Your task to perform on an android device: create a new album in the google photos Image 0: 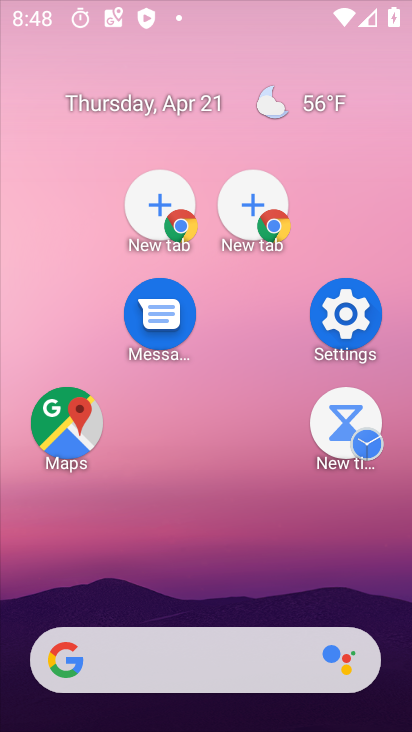
Step 0: click (403, 174)
Your task to perform on an android device: create a new album in the google photos Image 1: 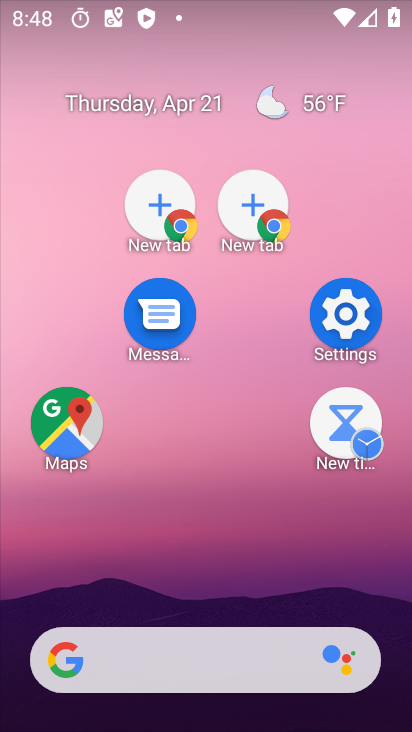
Step 1: drag from (291, 681) to (176, 72)
Your task to perform on an android device: create a new album in the google photos Image 2: 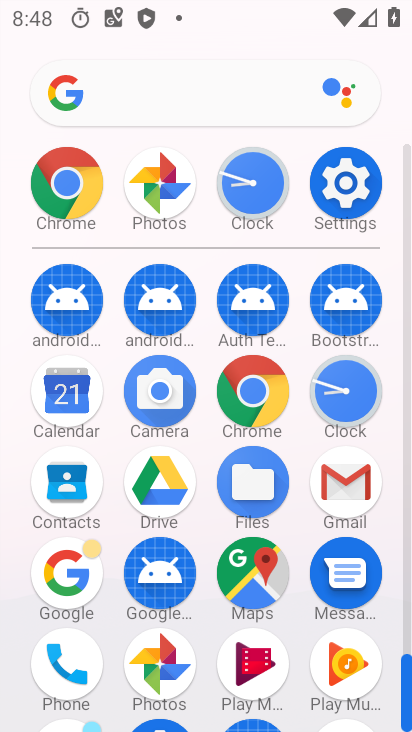
Step 2: click (150, 650)
Your task to perform on an android device: create a new album in the google photos Image 3: 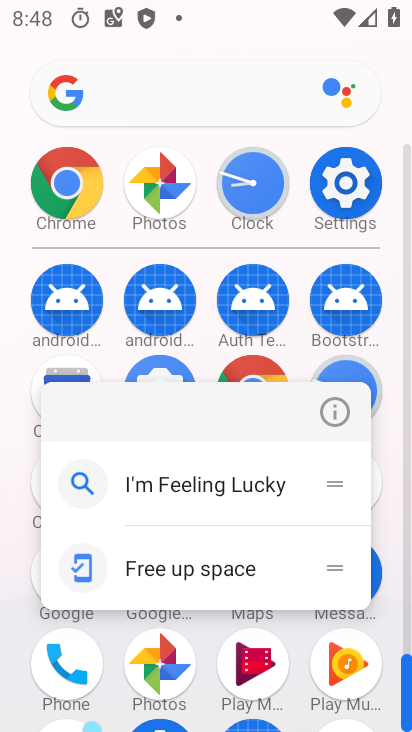
Step 3: click (152, 648)
Your task to perform on an android device: create a new album in the google photos Image 4: 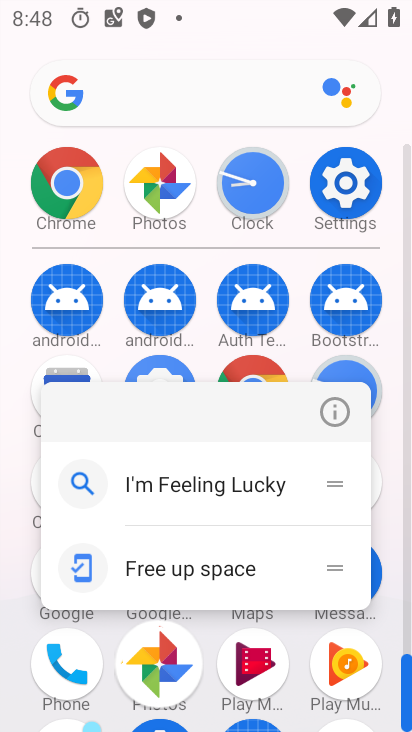
Step 4: click (153, 650)
Your task to perform on an android device: create a new album in the google photos Image 5: 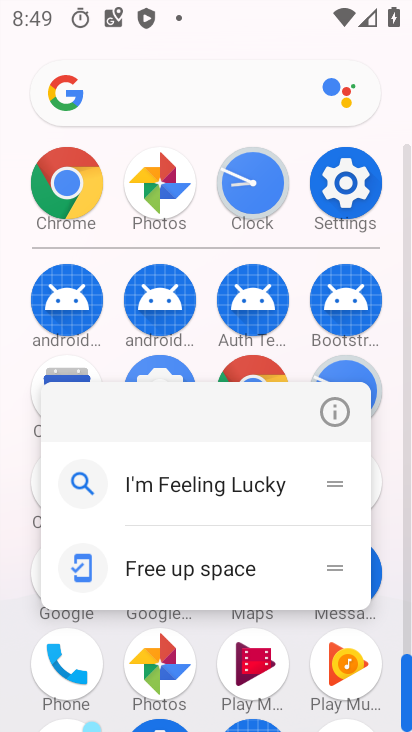
Step 5: click (153, 667)
Your task to perform on an android device: create a new album in the google photos Image 6: 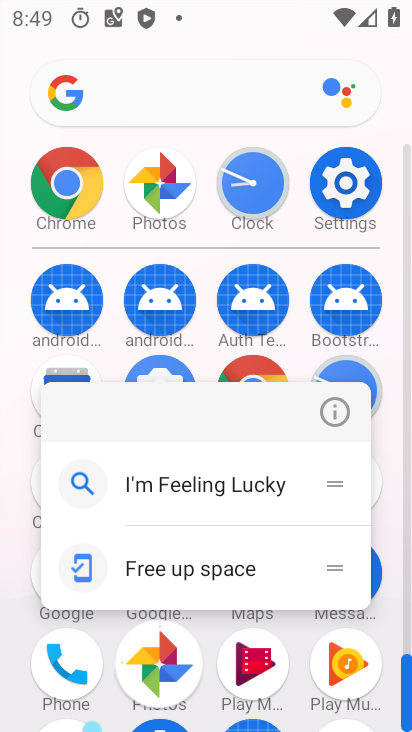
Step 6: click (157, 666)
Your task to perform on an android device: create a new album in the google photos Image 7: 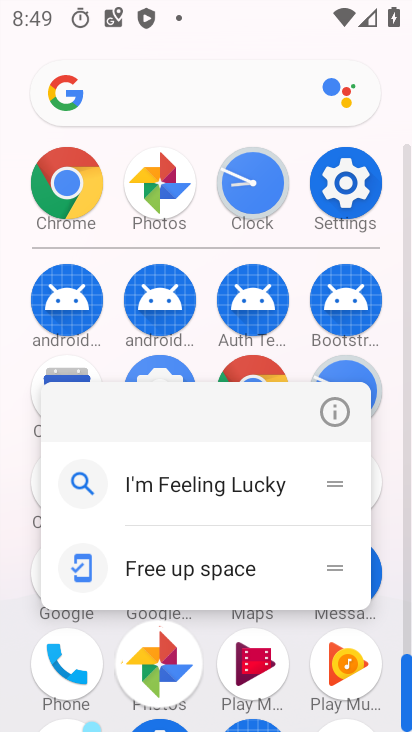
Step 7: click (159, 656)
Your task to perform on an android device: create a new album in the google photos Image 8: 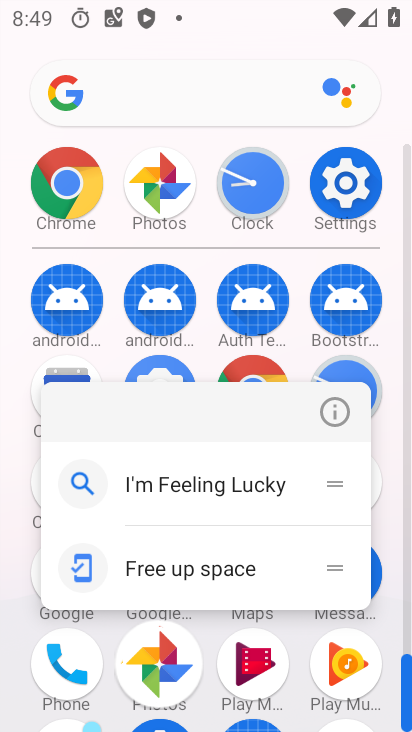
Step 8: click (159, 656)
Your task to perform on an android device: create a new album in the google photos Image 9: 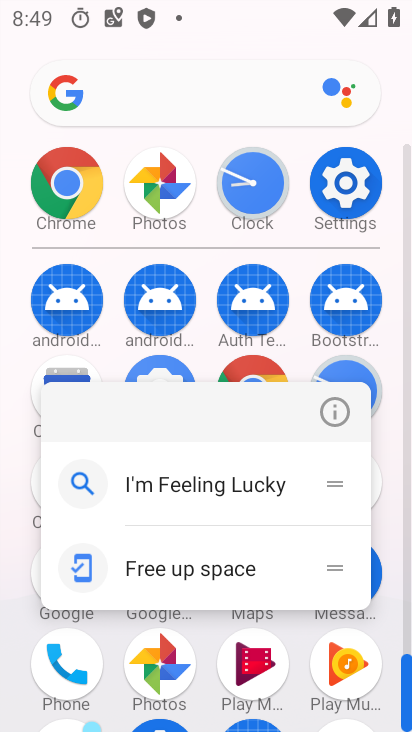
Step 9: click (167, 659)
Your task to perform on an android device: create a new album in the google photos Image 10: 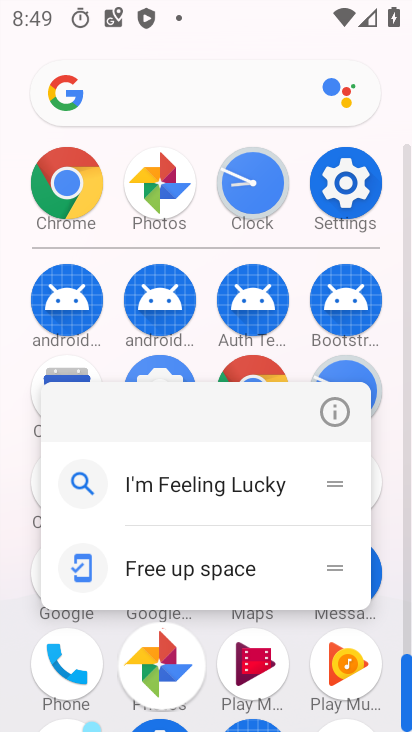
Step 10: click (170, 662)
Your task to perform on an android device: create a new album in the google photos Image 11: 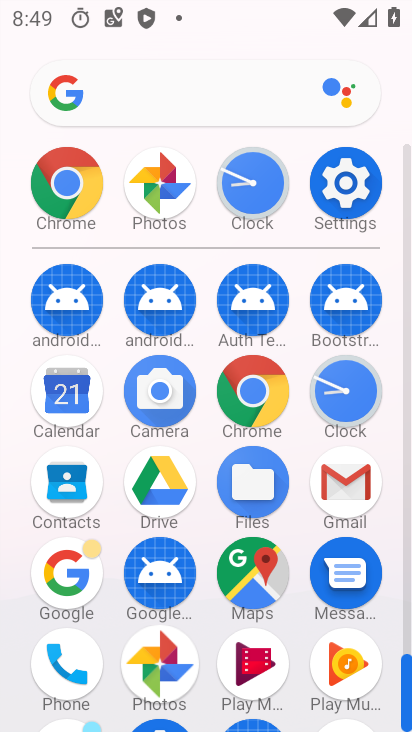
Step 11: click (169, 660)
Your task to perform on an android device: create a new album in the google photos Image 12: 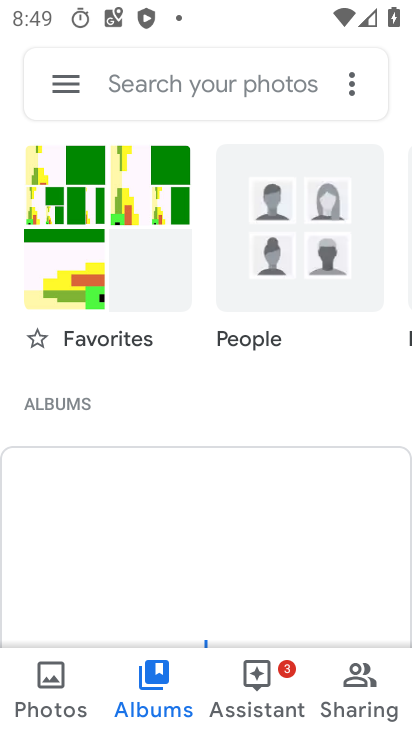
Step 12: click (74, 199)
Your task to perform on an android device: create a new album in the google photos Image 13: 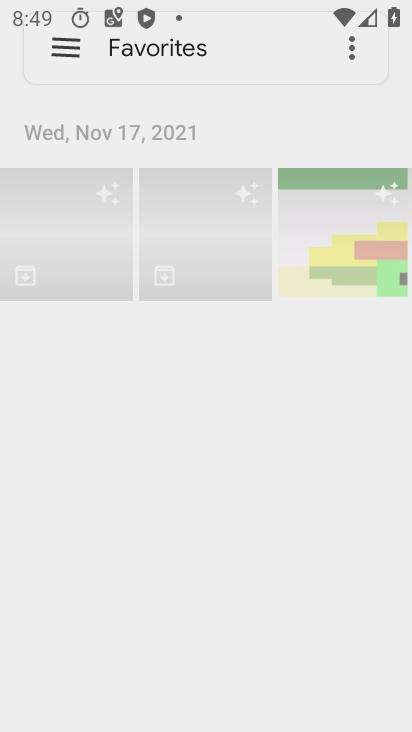
Step 13: click (154, 677)
Your task to perform on an android device: create a new album in the google photos Image 14: 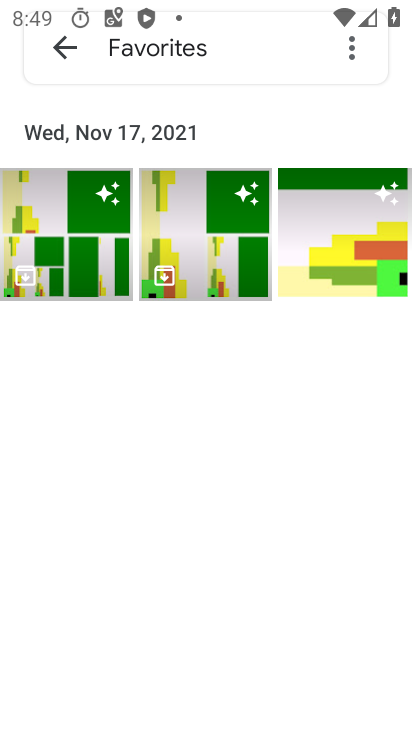
Step 14: drag from (185, 462) to (129, 159)
Your task to perform on an android device: create a new album in the google photos Image 15: 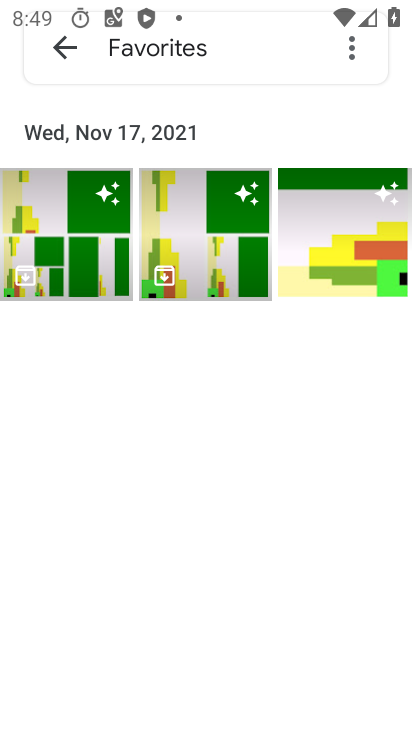
Step 15: drag from (165, 429) to (84, 107)
Your task to perform on an android device: create a new album in the google photos Image 16: 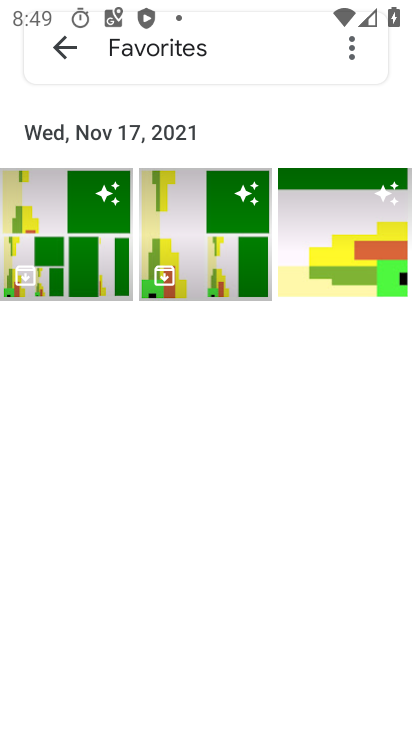
Step 16: drag from (119, 425) to (105, 155)
Your task to perform on an android device: create a new album in the google photos Image 17: 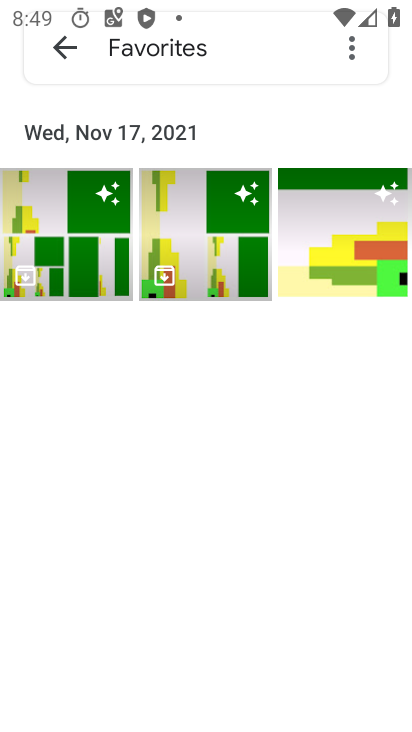
Step 17: drag from (146, 374) to (183, 37)
Your task to perform on an android device: create a new album in the google photos Image 18: 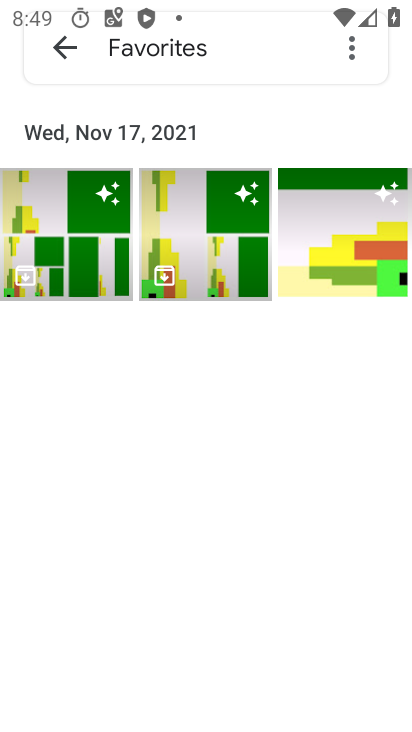
Step 18: drag from (180, 448) to (193, 89)
Your task to perform on an android device: create a new album in the google photos Image 19: 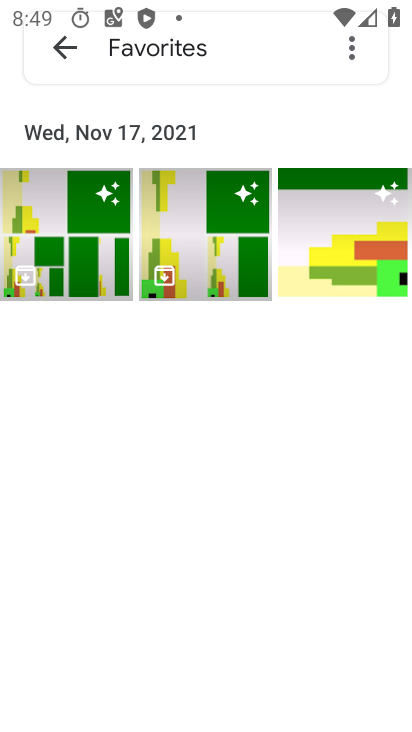
Step 19: drag from (185, 424) to (172, 76)
Your task to perform on an android device: create a new album in the google photos Image 20: 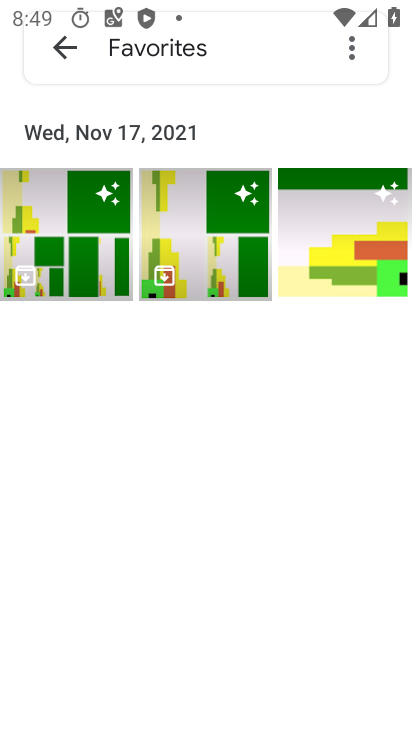
Step 20: drag from (76, 470) to (67, 175)
Your task to perform on an android device: create a new album in the google photos Image 21: 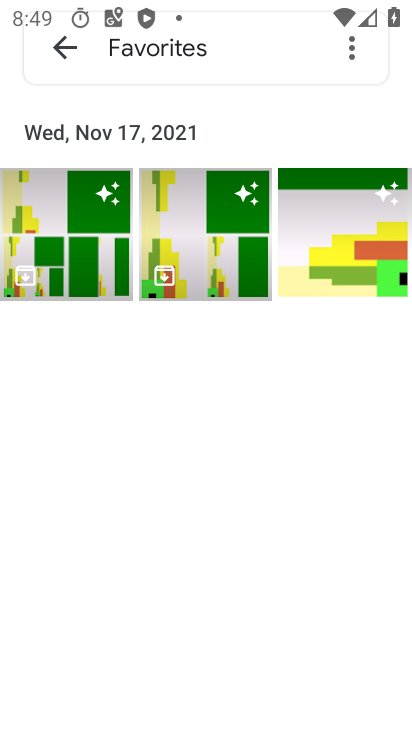
Step 21: drag from (90, 467) to (131, 84)
Your task to perform on an android device: create a new album in the google photos Image 22: 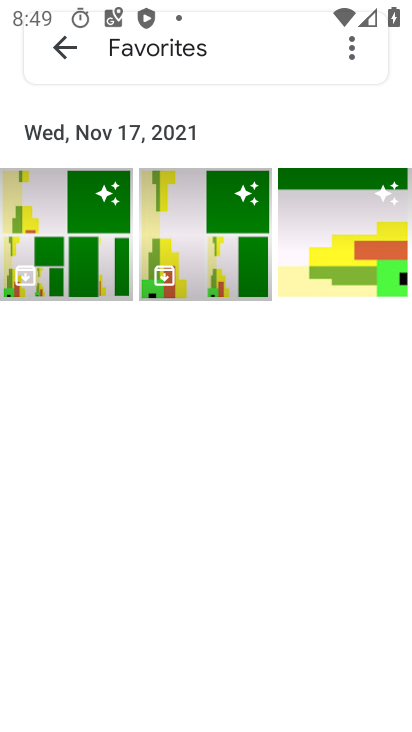
Step 22: drag from (132, 469) to (108, 44)
Your task to perform on an android device: create a new album in the google photos Image 23: 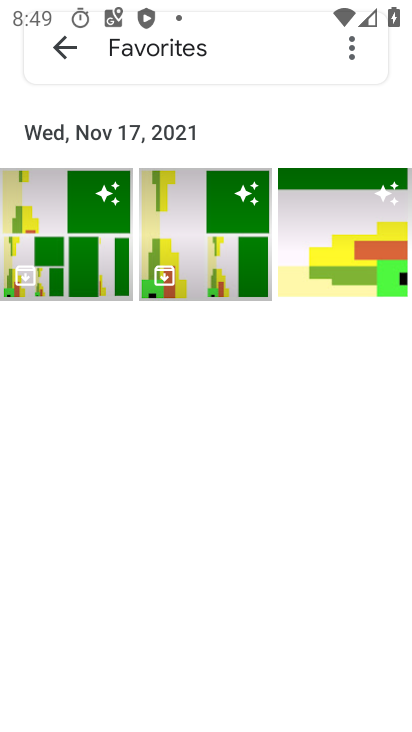
Step 23: drag from (152, 521) to (136, 11)
Your task to perform on an android device: create a new album in the google photos Image 24: 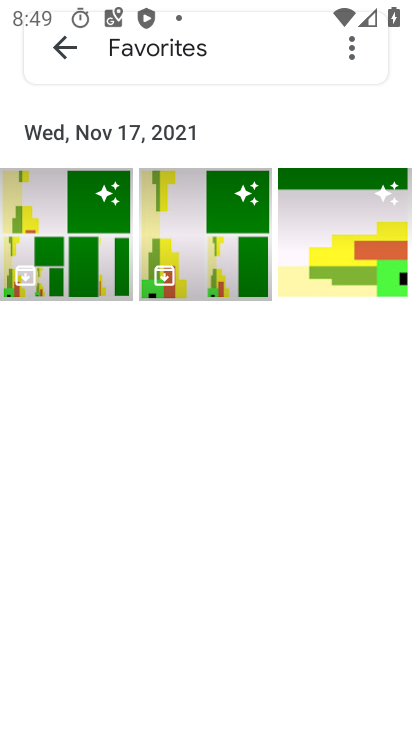
Step 24: drag from (156, 520) to (160, 41)
Your task to perform on an android device: create a new album in the google photos Image 25: 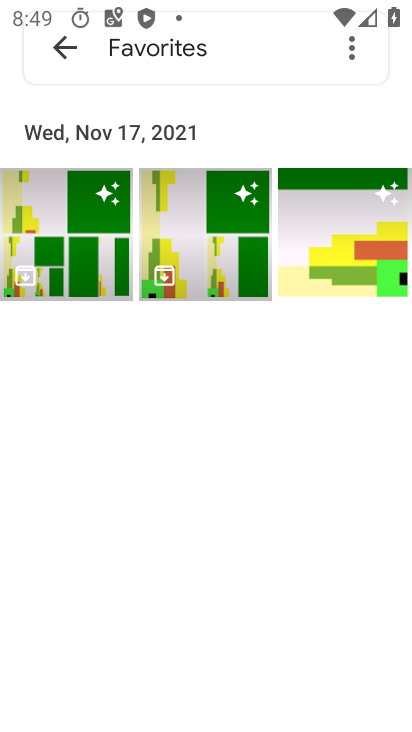
Step 25: drag from (186, 426) to (87, 46)
Your task to perform on an android device: create a new album in the google photos Image 26: 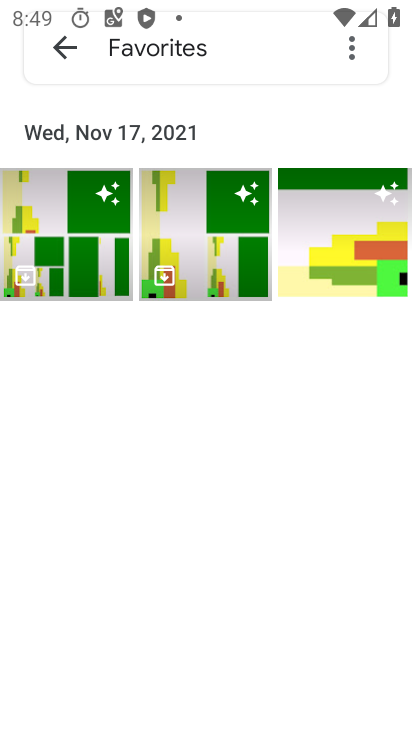
Step 26: drag from (125, 375) to (158, 186)
Your task to perform on an android device: create a new album in the google photos Image 27: 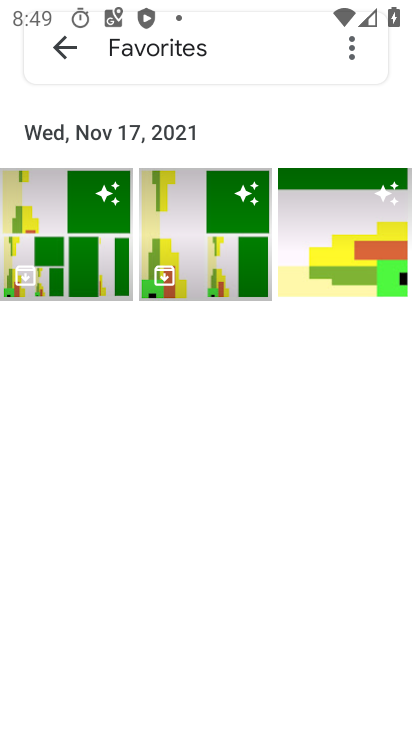
Step 27: drag from (185, 507) to (124, 122)
Your task to perform on an android device: create a new album in the google photos Image 28: 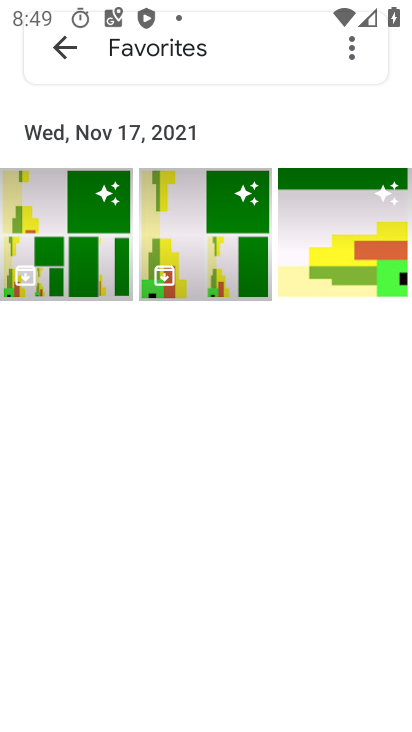
Step 28: click (82, 68)
Your task to perform on an android device: create a new album in the google photos Image 29: 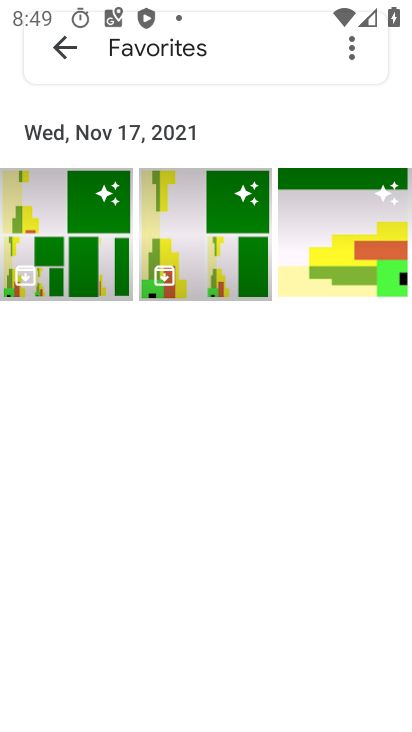
Step 29: drag from (161, 398) to (113, 121)
Your task to perform on an android device: create a new album in the google photos Image 30: 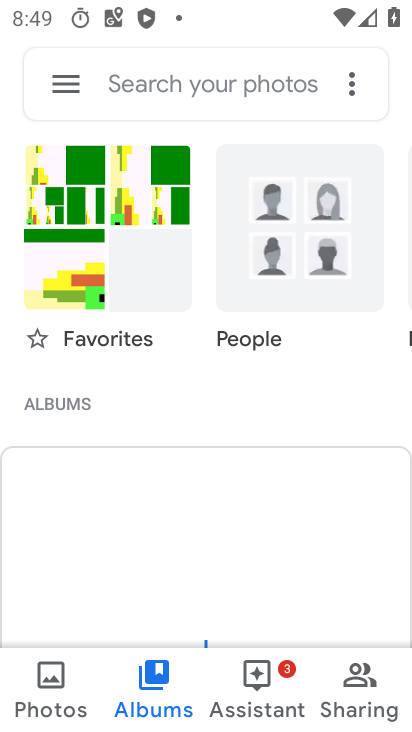
Step 30: click (151, 700)
Your task to perform on an android device: create a new album in the google photos Image 31: 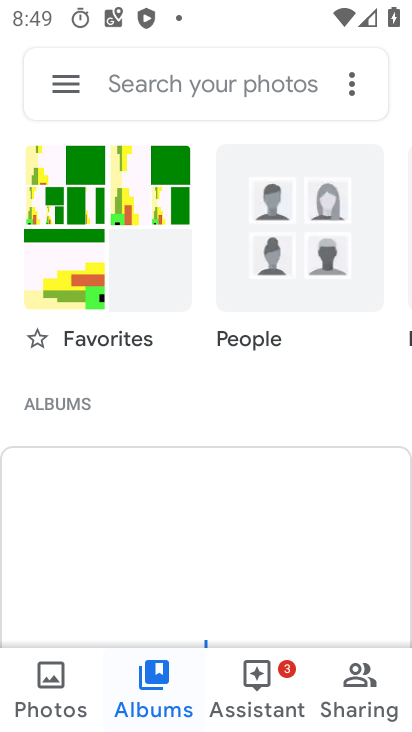
Step 31: drag from (164, 526) to (117, 302)
Your task to perform on an android device: create a new album in the google photos Image 32: 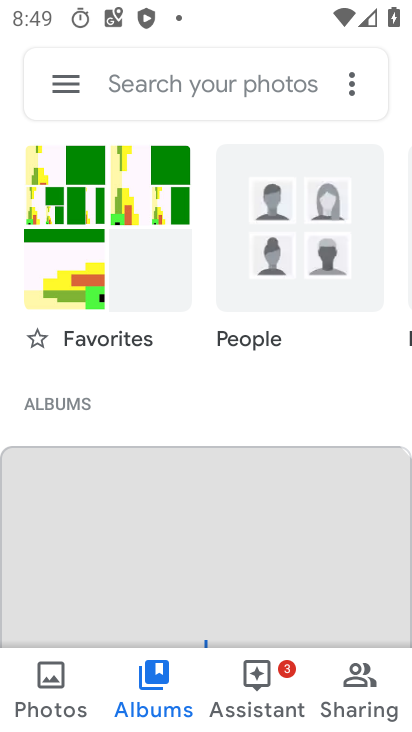
Step 32: drag from (132, 466) to (133, 234)
Your task to perform on an android device: create a new album in the google photos Image 33: 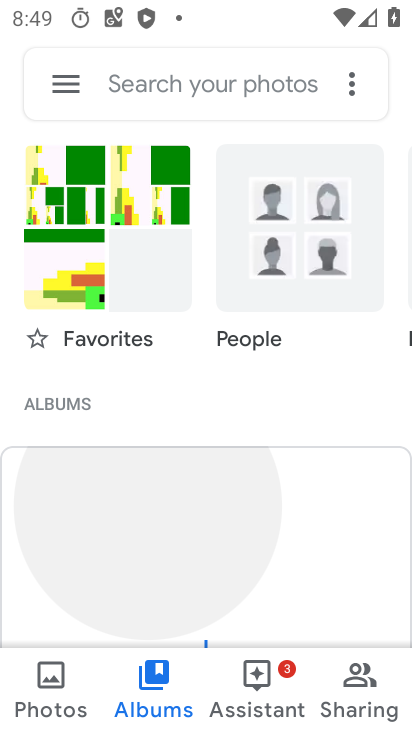
Step 33: drag from (184, 496) to (196, 229)
Your task to perform on an android device: create a new album in the google photos Image 34: 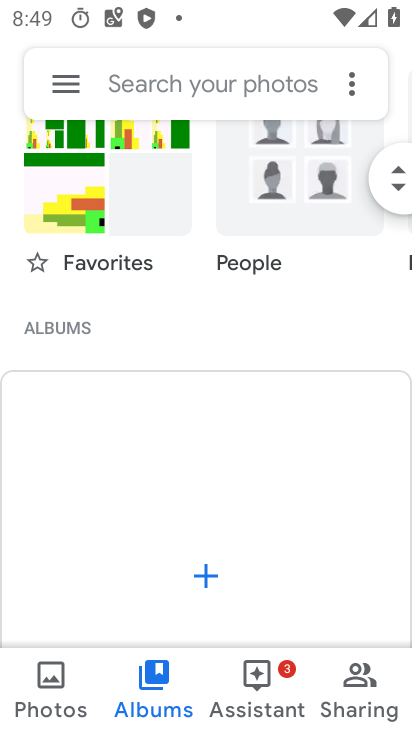
Step 34: drag from (193, 521) to (179, 168)
Your task to perform on an android device: create a new album in the google photos Image 35: 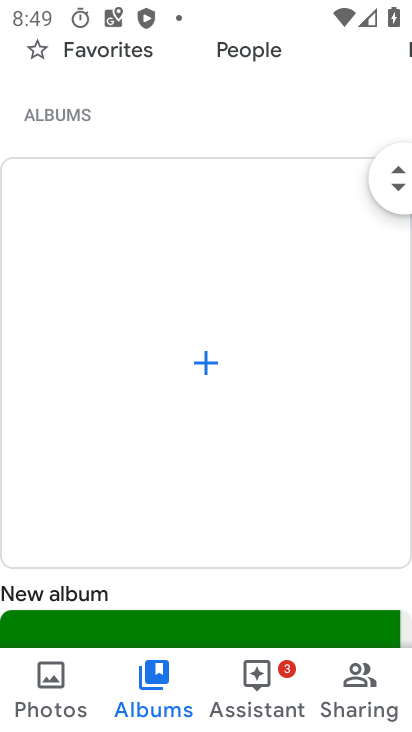
Step 35: click (196, 366)
Your task to perform on an android device: create a new album in the google photos Image 36: 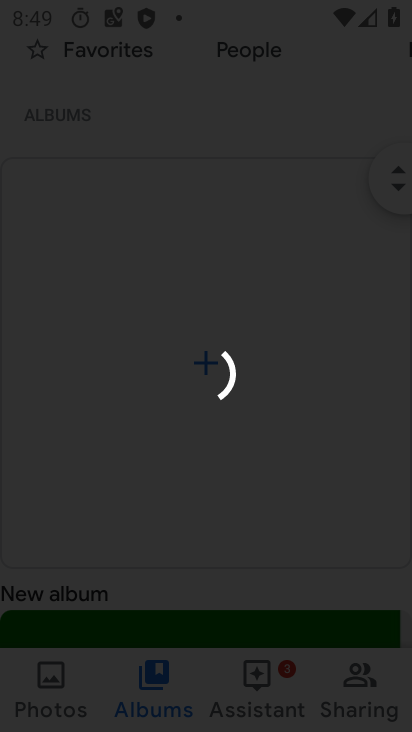
Step 36: click (199, 351)
Your task to perform on an android device: create a new album in the google photos Image 37: 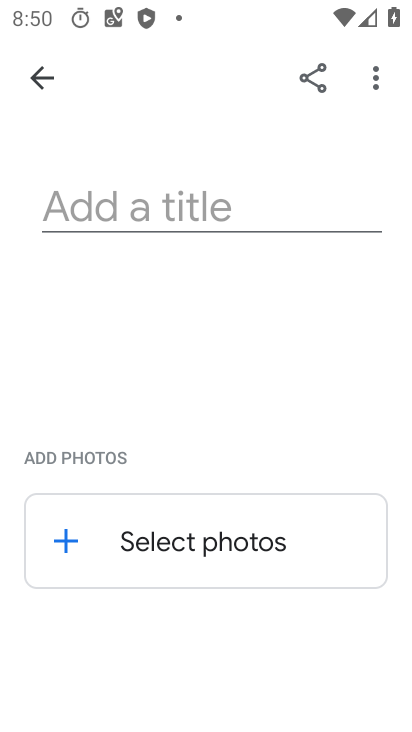
Step 37: click (158, 528)
Your task to perform on an android device: create a new album in the google photos Image 38: 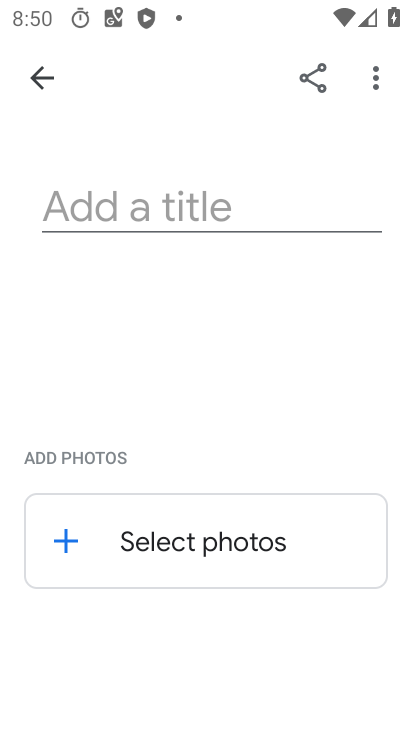
Step 38: click (214, 535)
Your task to perform on an android device: create a new album in the google photos Image 39: 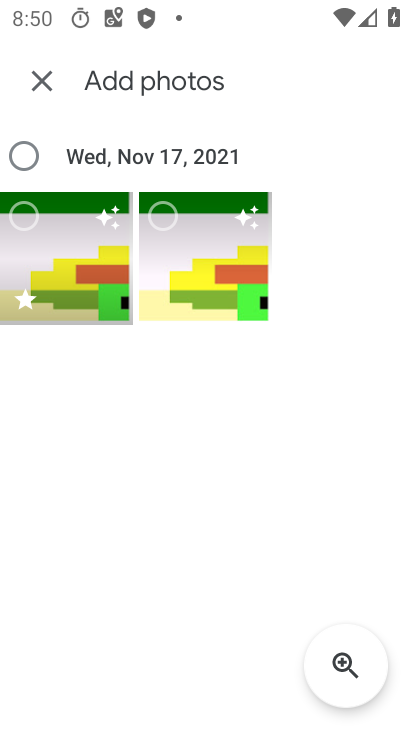
Step 39: click (20, 220)
Your task to perform on an android device: create a new album in the google photos Image 40: 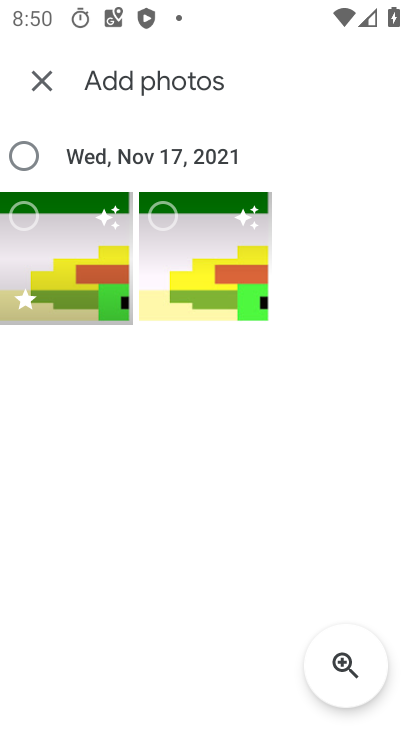
Step 40: click (20, 220)
Your task to perform on an android device: create a new album in the google photos Image 41: 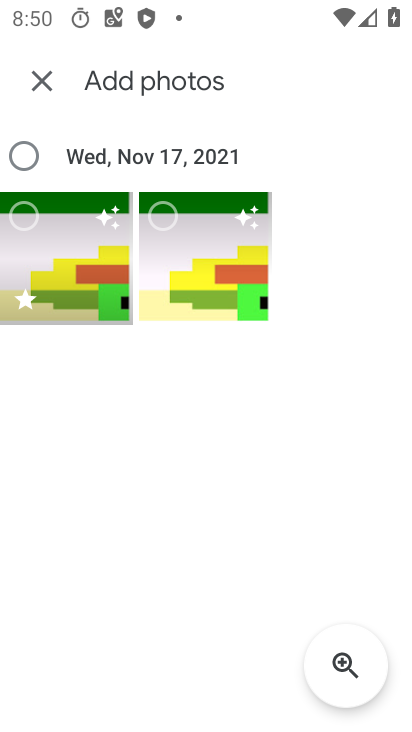
Step 41: click (22, 207)
Your task to perform on an android device: create a new album in the google photos Image 42: 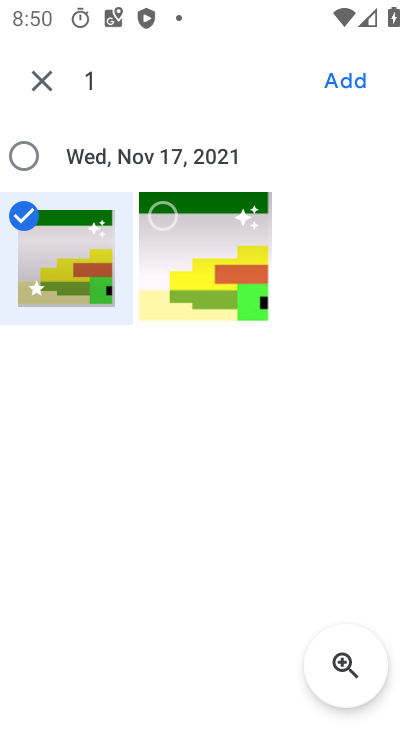
Step 42: click (23, 208)
Your task to perform on an android device: create a new album in the google photos Image 43: 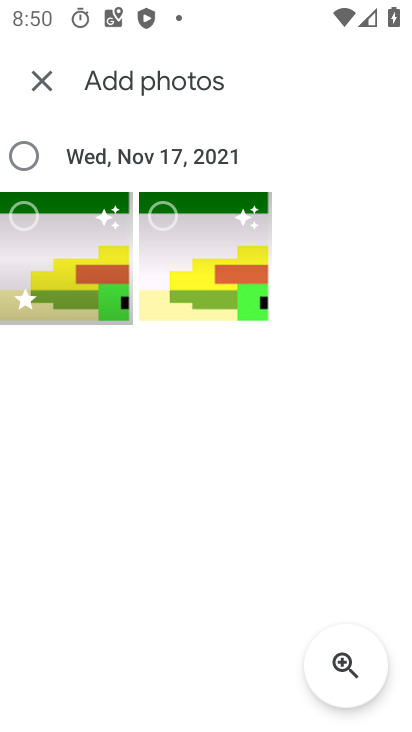
Step 43: click (20, 154)
Your task to perform on an android device: create a new album in the google photos Image 44: 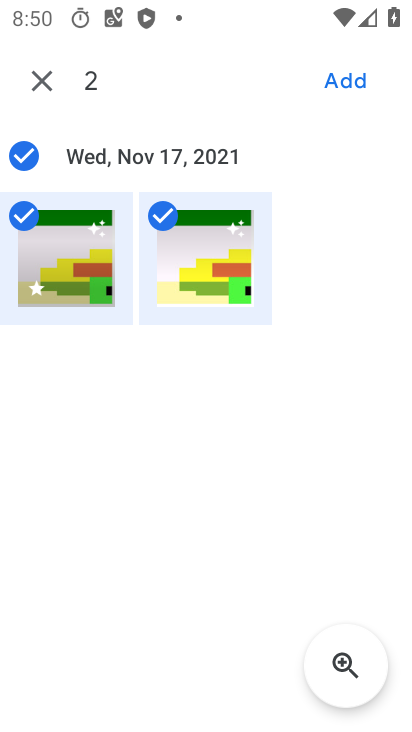
Step 44: click (356, 83)
Your task to perform on an android device: create a new album in the google photos Image 45: 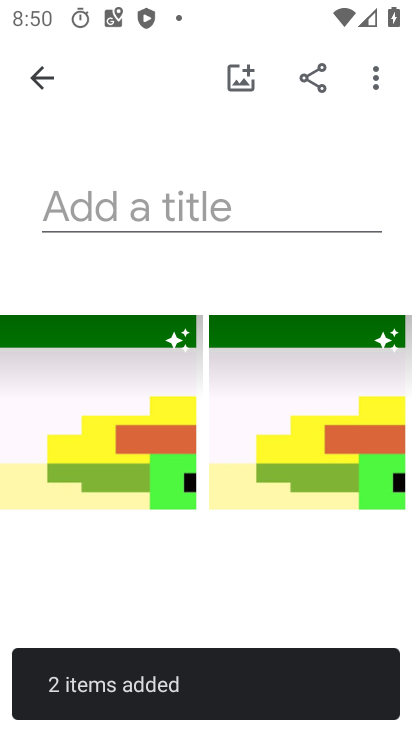
Step 45: click (85, 190)
Your task to perform on an android device: create a new album in the google photos Image 46: 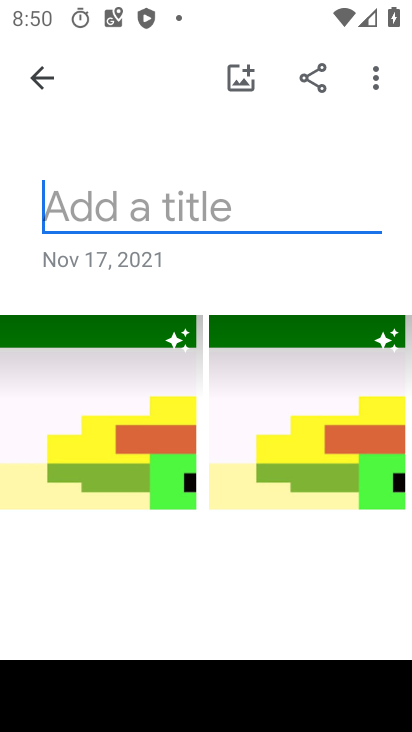
Step 46: type "gun"
Your task to perform on an android device: create a new album in the google photos Image 47: 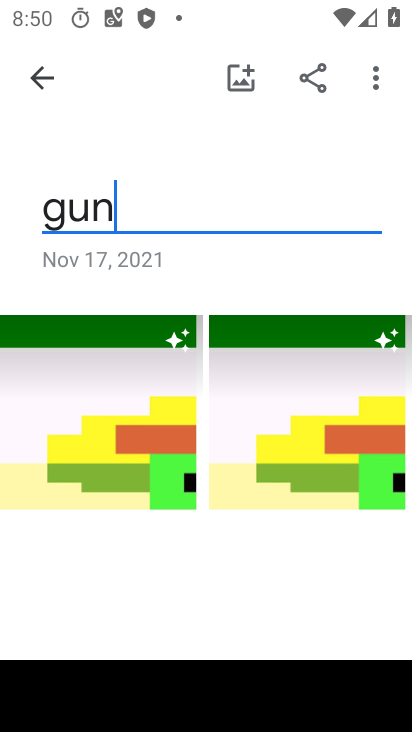
Step 47: click (277, 423)
Your task to perform on an android device: create a new album in the google photos Image 48: 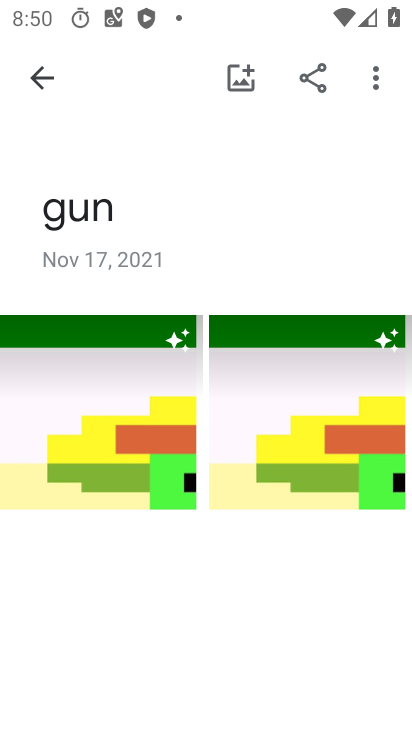
Step 48: click (246, 414)
Your task to perform on an android device: create a new album in the google photos Image 49: 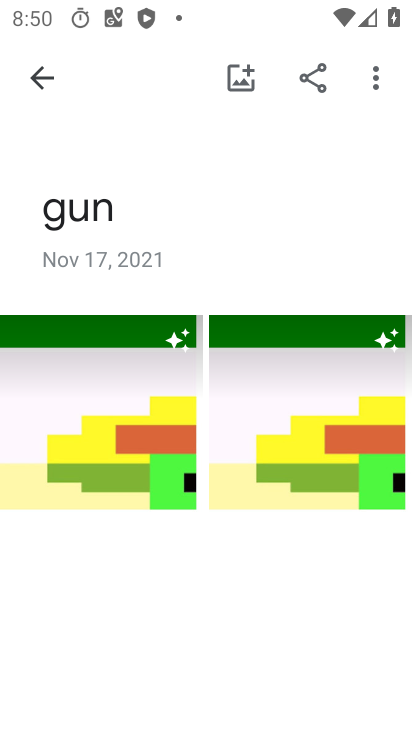
Step 49: click (246, 414)
Your task to perform on an android device: create a new album in the google photos Image 50: 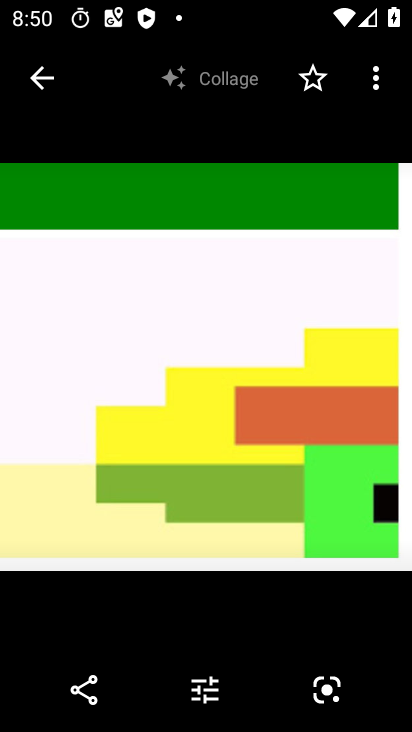
Step 50: click (246, 414)
Your task to perform on an android device: create a new album in the google photos Image 51: 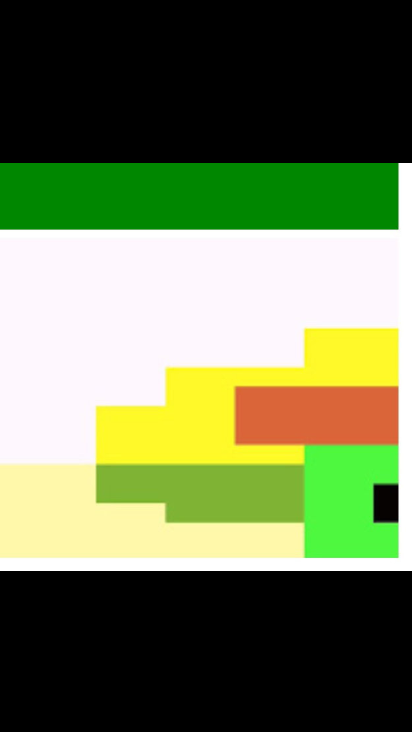
Step 51: click (63, 71)
Your task to perform on an android device: create a new album in the google photos Image 52: 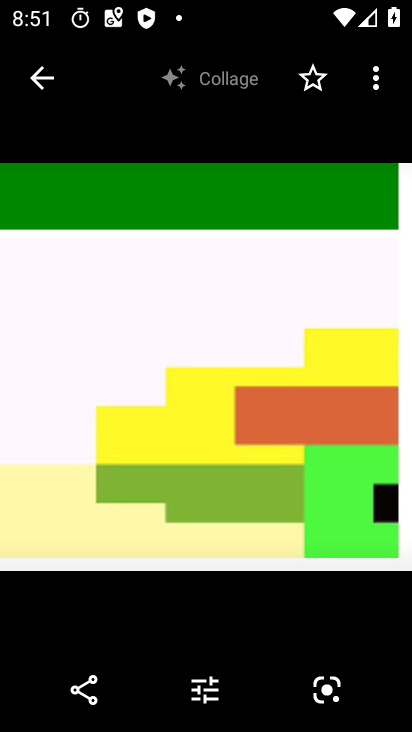
Step 52: click (128, 346)
Your task to perform on an android device: create a new album in the google photos Image 53: 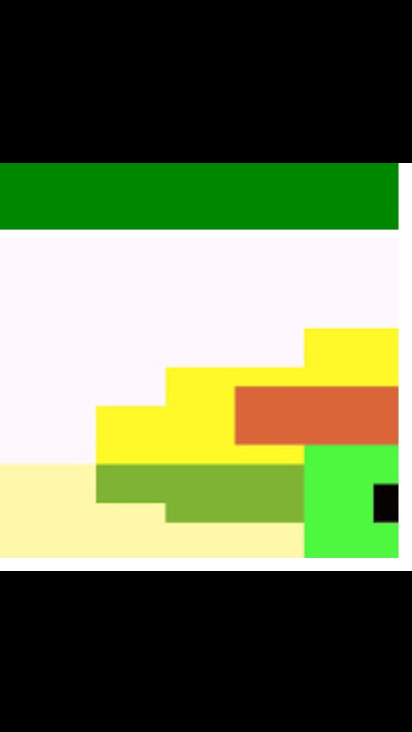
Step 53: click (45, 83)
Your task to perform on an android device: create a new album in the google photos Image 54: 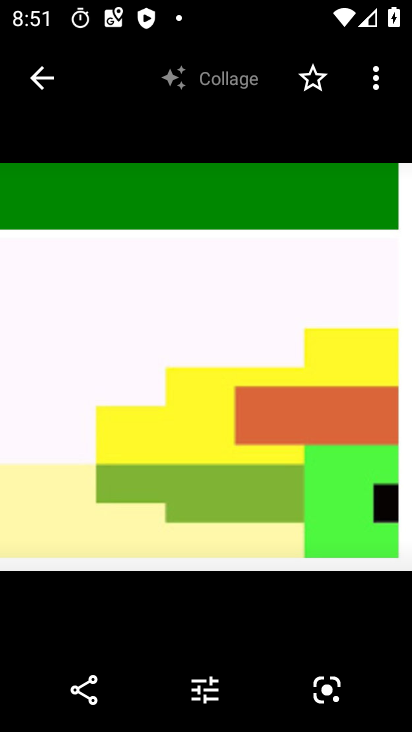
Step 54: click (122, 403)
Your task to perform on an android device: create a new album in the google photos Image 55: 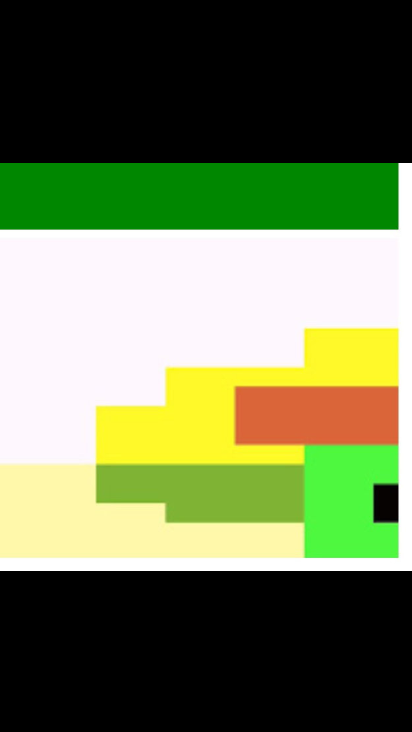
Step 55: click (44, 75)
Your task to perform on an android device: create a new album in the google photos Image 56: 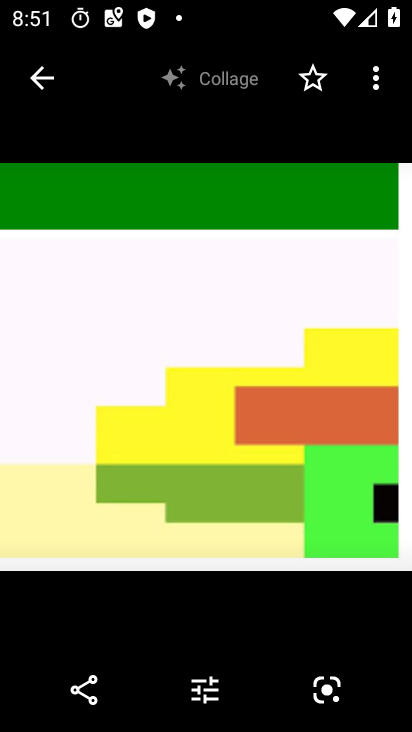
Step 56: task complete